Your task to perform on an android device: Open Wikipedia Image 0: 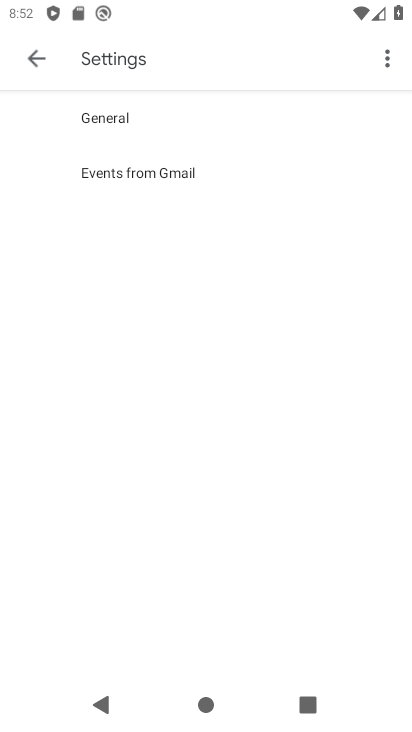
Step 0: press home button
Your task to perform on an android device: Open Wikipedia Image 1: 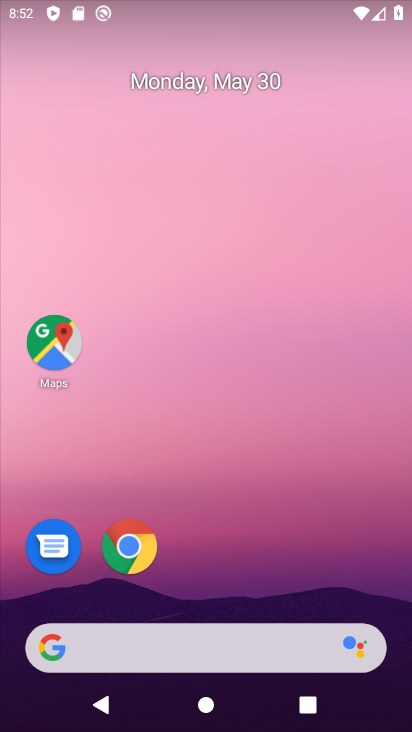
Step 1: drag from (207, 543) to (198, 18)
Your task to perform on an android device: Open Wikipedia Image 2: 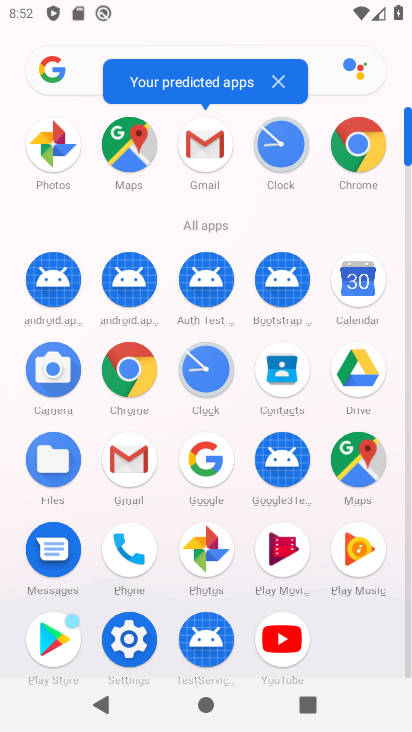
Step 2: click (130, 373)
Your task to perform on an android device: Open Wikipedia Image 3: 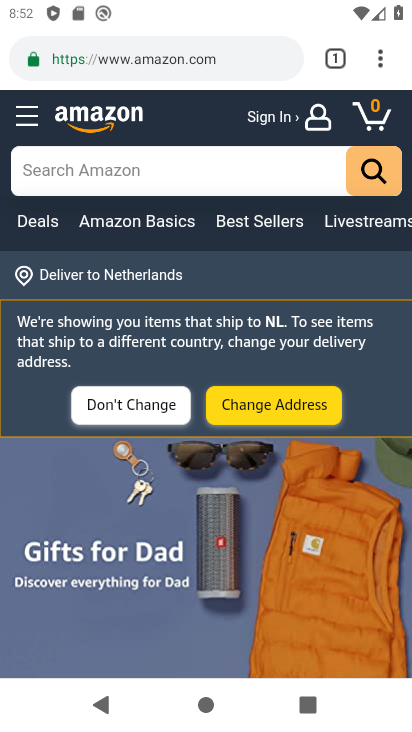
Step 3: click (137, 62)
Your task to perform on an android device: Open Wikipedia Image 4: 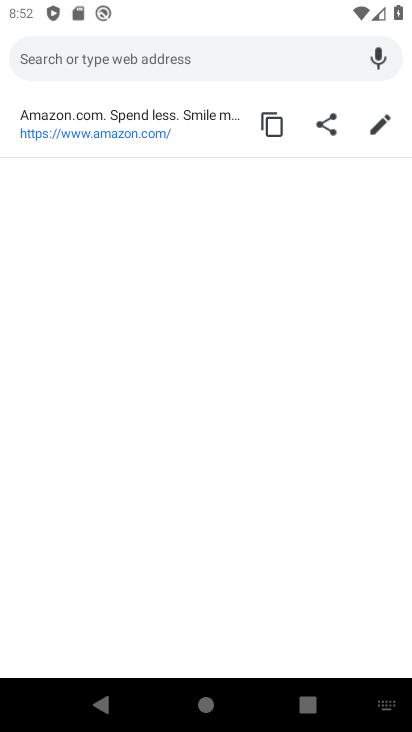
Step 4: type "wikipedia"
Your task to perform on an android device: Open Wikipedia Image 5: 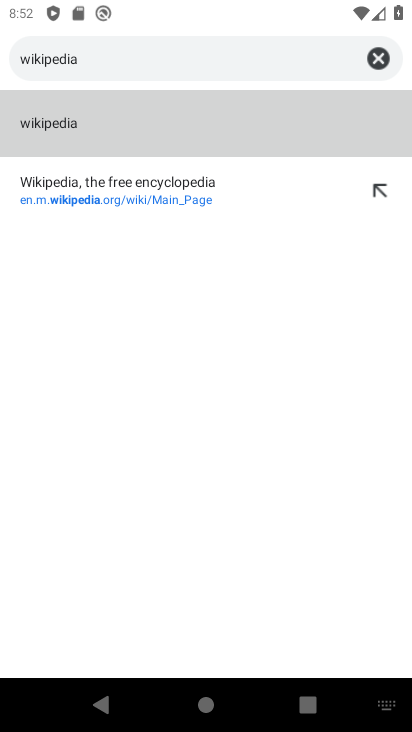
Step 5: click (42, 118)
Your task to perform on an android device: Open Wikipedia Image 6: 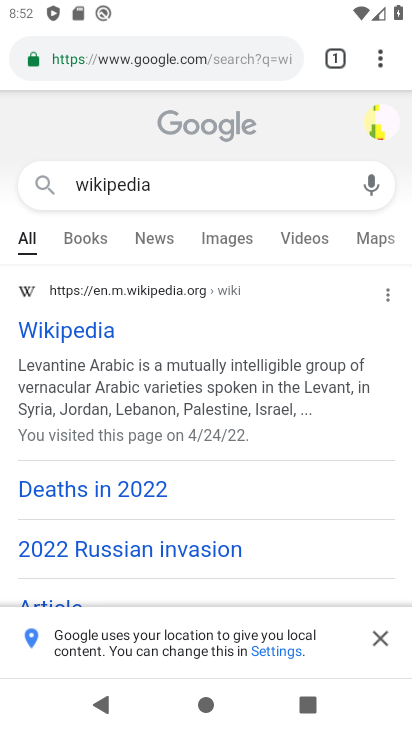
Step 6: click (76, 332)
Your task to perform on an android device: Open Wikipedia Image 7: 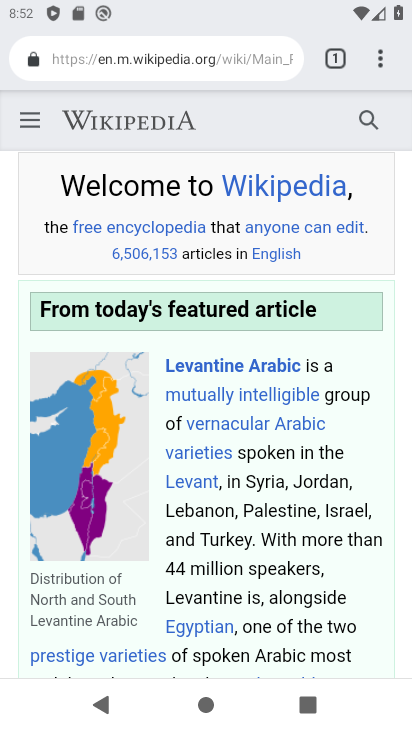
Step 7: task complete